Your task to perform on an android device: Open internet settings Image 0: 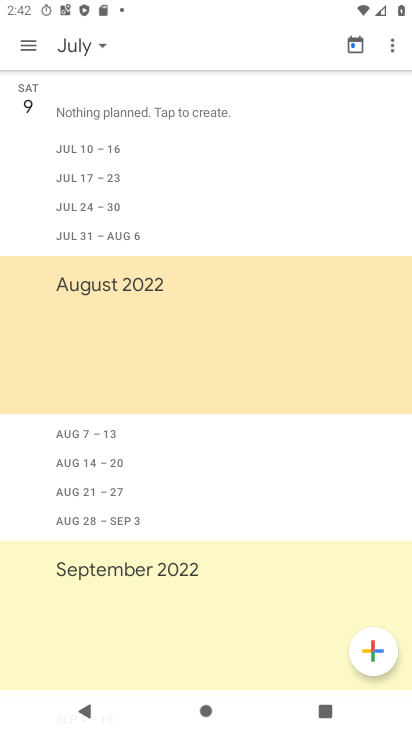
Step 0: press home button
Your task to perform on an android device: Open internet settings Image 1: 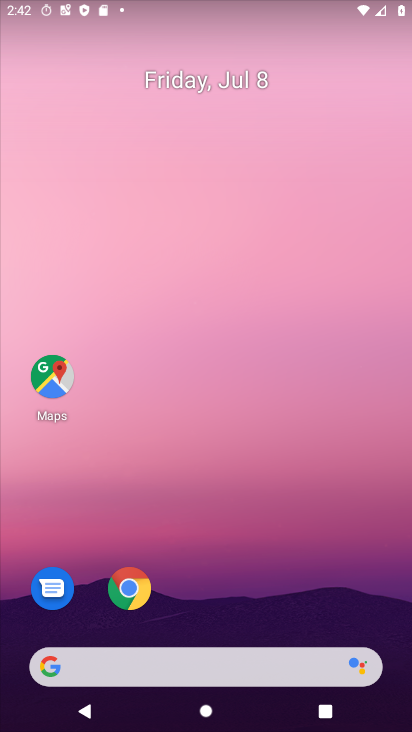
Step 1: drag from (208, 625) to (261, 65)
Your task to perform on an android device: Open internet settings Image 2: 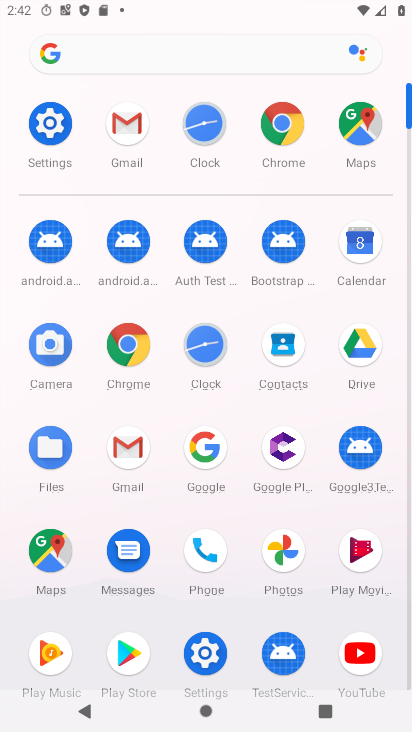
Step 2: click (55, 124)
Your task to perform on an android device: Open internet settings Image 3: 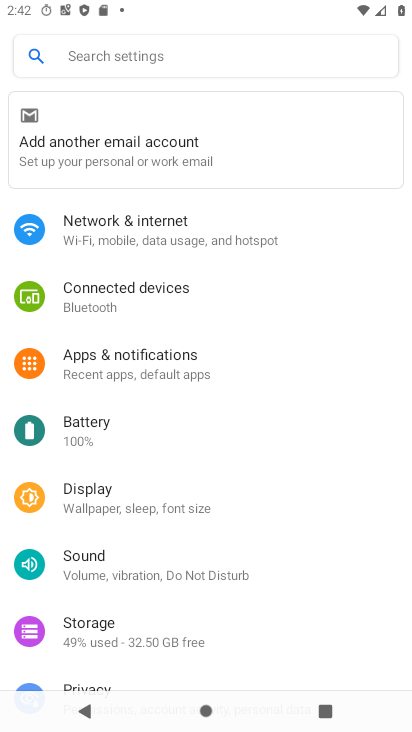
Step 3: click (121, 236)
Your task to perform on an android device: Open internet settings Image 4: 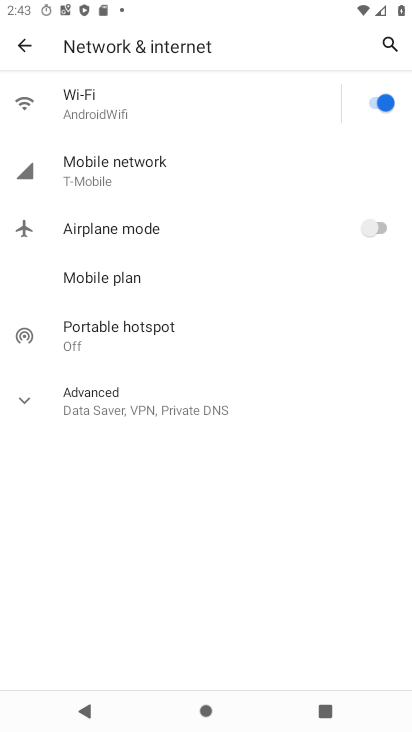
Step 4: task complete